Your task to perform on an android device: Go to battery settings Image 0: 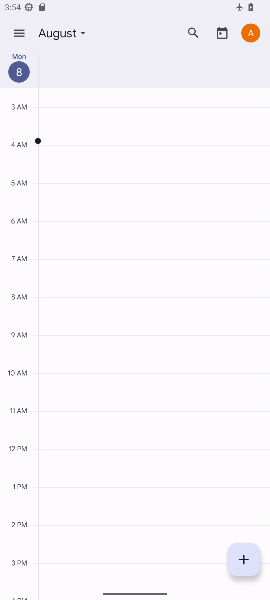
Step 0: press home button
Your task to perform on an android device: Go to battery settings Image 1: 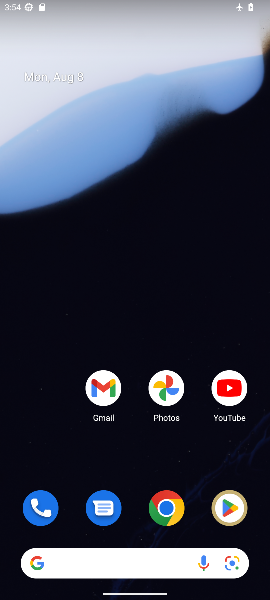
Step 1: drag from (141, 484) to (113, 28)
Your task to perform on an android device: Go to battery settings Image 2: 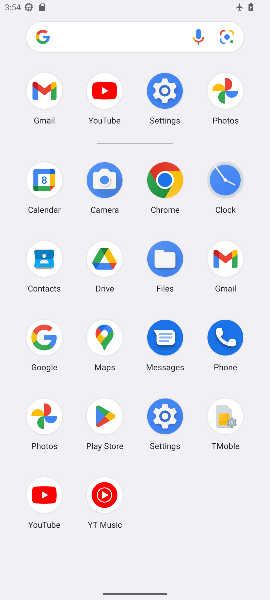
Step 2: click (165, 89)
Your task to perform on an android device: Go to battery settings Image 3: 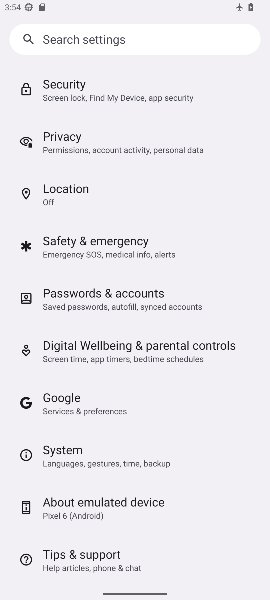
Step 3: drag from (186, 436) to (179, 177)
Your task to perform on an android device: Go to battery settings Image 4: 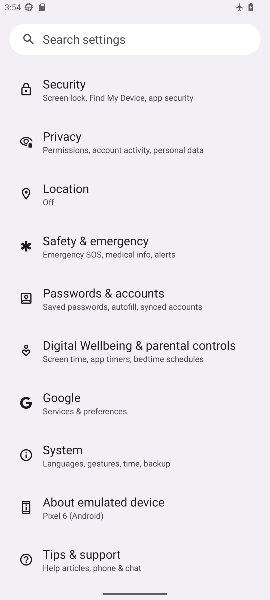
Step 4: drag from (179, 132) to (193, 577)
Your task to perform on an android device: Go to battery settings Image 5: 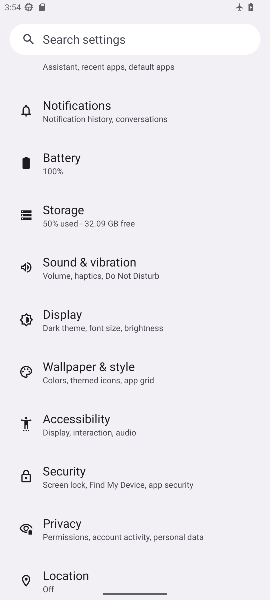
Step 5: click (58, 156)
Your task to perform on an android device: Go to battery settings Image 6: 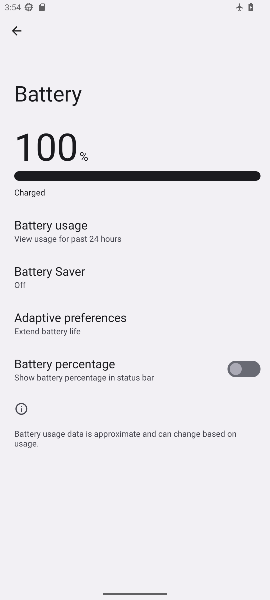
Step 6: task complete